Your task to perform on an android device: find which apps use the phone's location Image 0: 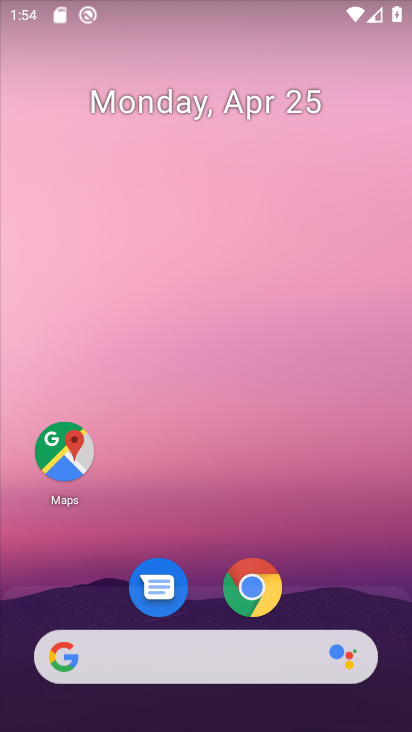
Step 0: drag from (200, 564) to (218, 89)
Your task to perform on an android device: find which apps use the phone's location Image 1: 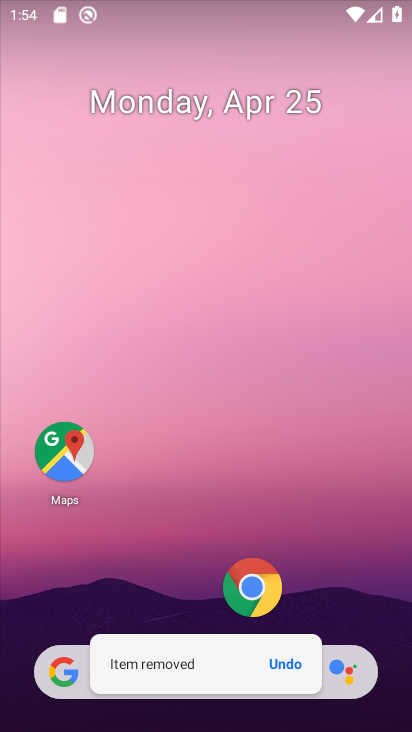
Step 1: click (339, 605)
Your task to perform on an android device: find which apps use the phone's location Image 2: 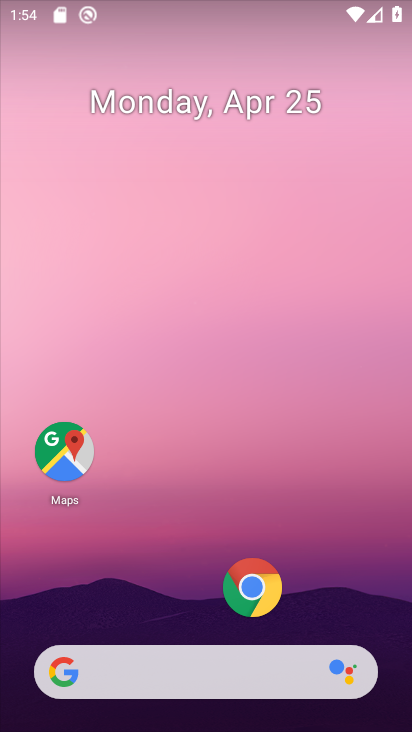
Step 2: drag from (338, 613) to (356, 107)
Your task to perform on an android device: find which apps use the phone's location Image 3: 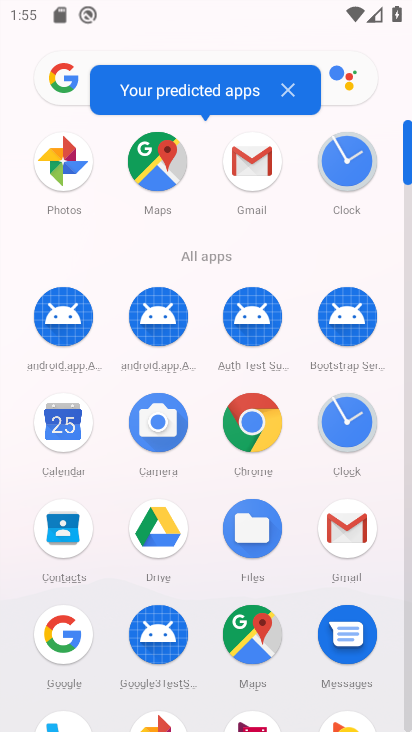
Step 3: drag from (203, 671) to (248, 179)
Your task to perform on an android device: find which apps use the phone's location Image 4: 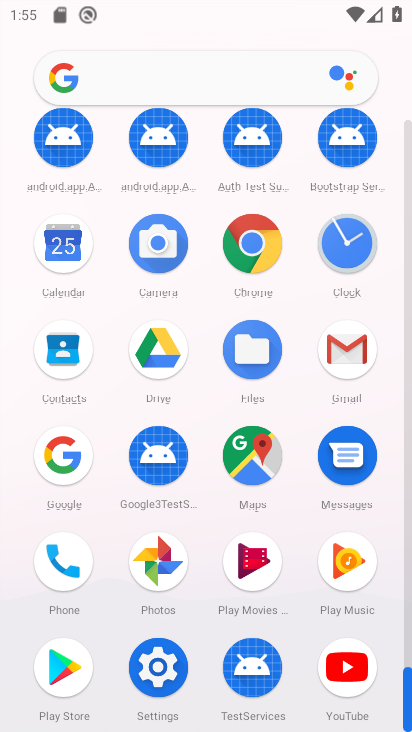
Step 4: click (161, 669)
Your task to perform on an android device: find which apps use the phone's location Image 5: 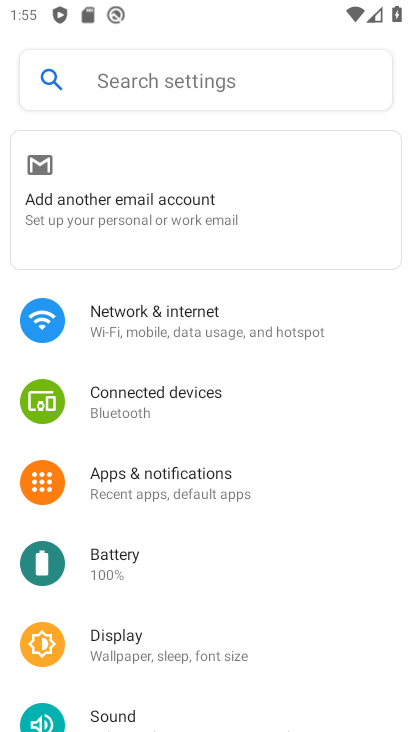
Step 5: drag from (169, 684) to (199, 187)
Your task to perform on an android device: find which apps use the phone's location Image 6: 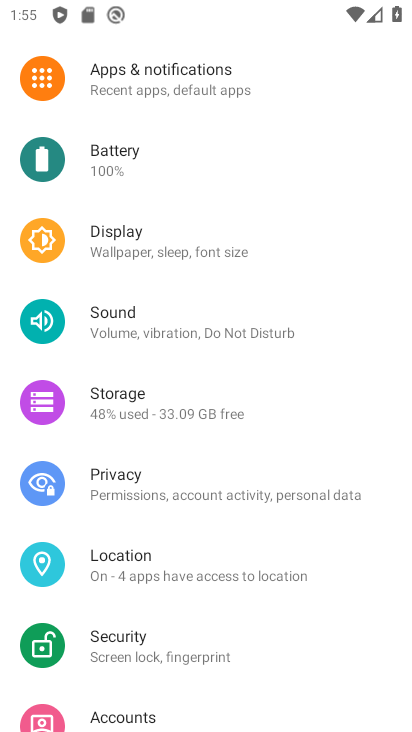
Step 6: click (153, 566)
Your task to perform on an android device: find which apps use the phone's location Image 7: 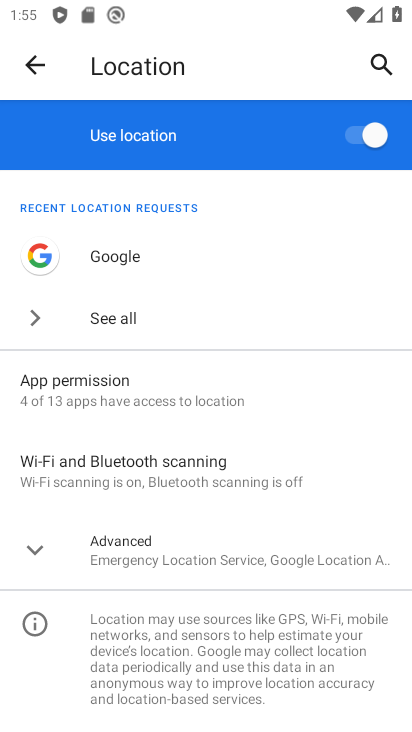
Step 7: click (99, 388)
Your task to perform on an android device: find which apps use the phone's location Image 8: 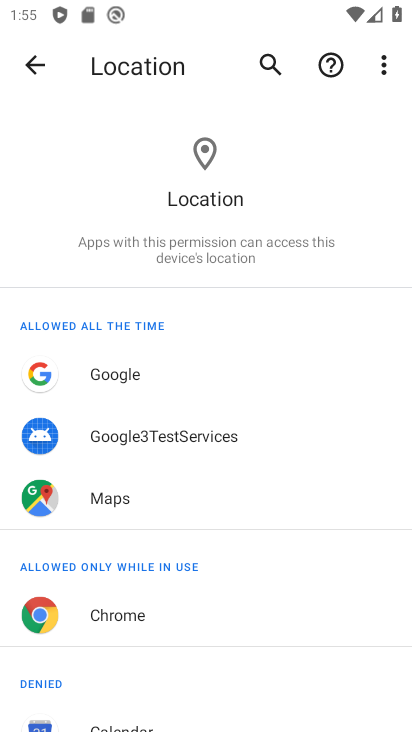
Step 8: task complete